Your task to perform on an android device: check google app version Image 0: 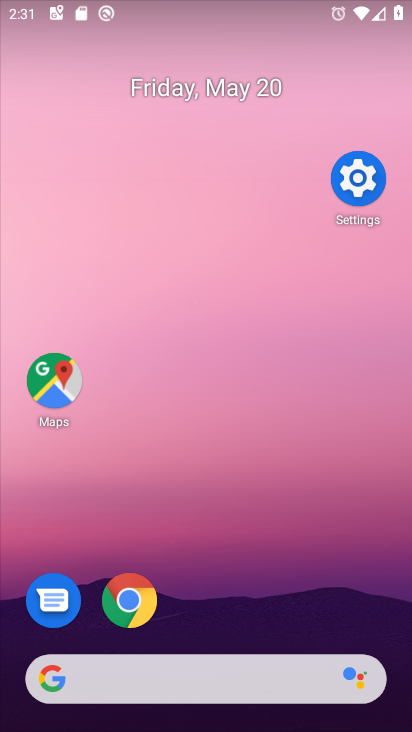
Step 0: click (58, 682)
Your task to perform on an android device: check google app version Image 1: 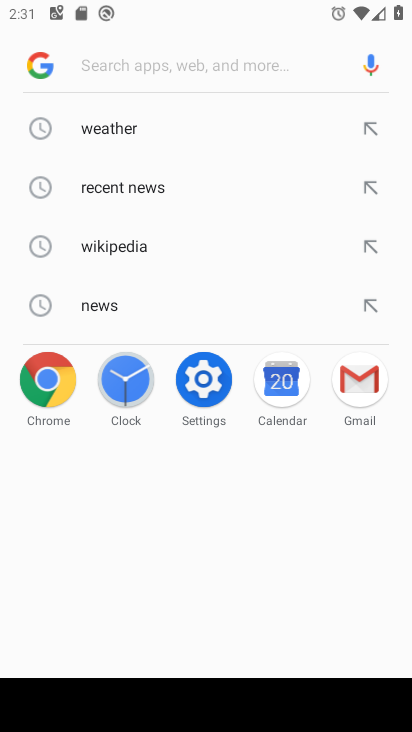
Step 1: click (39, 74)
Your task to perform on an android device: check google app version Image 2: 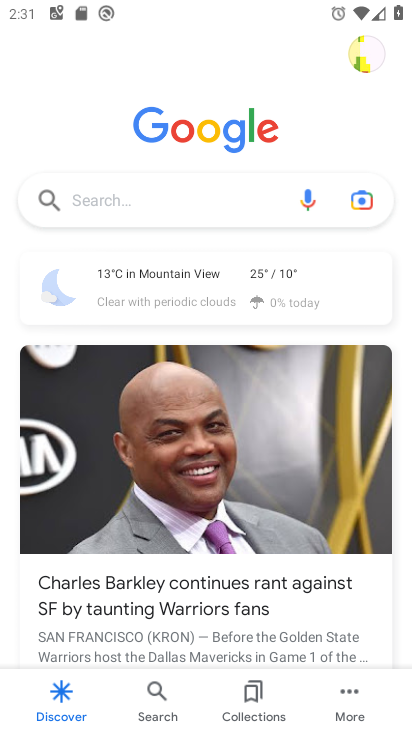
Step 2: click (348, 697)
Your task to perform on an android device: check google app version Image 3: 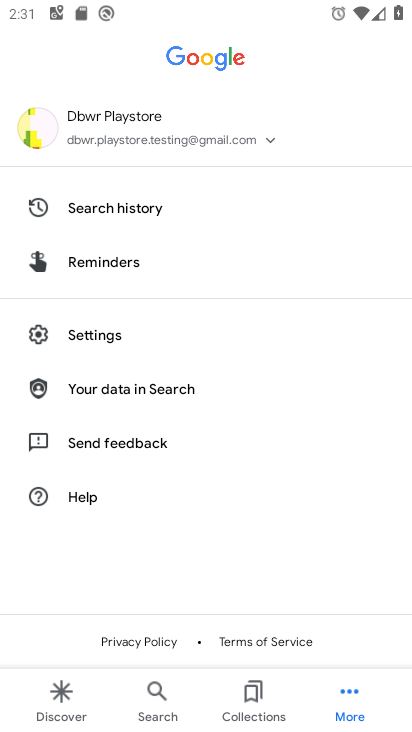
Step 3: click (92, 331)
Your task to perform on an android device: check google app version Image 4: 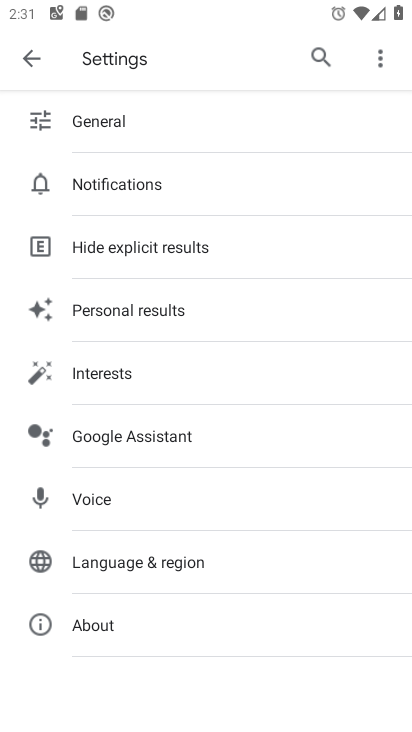
Step 4: click (117, 625)
Your task to perform on an android device: check google app version Image 5: 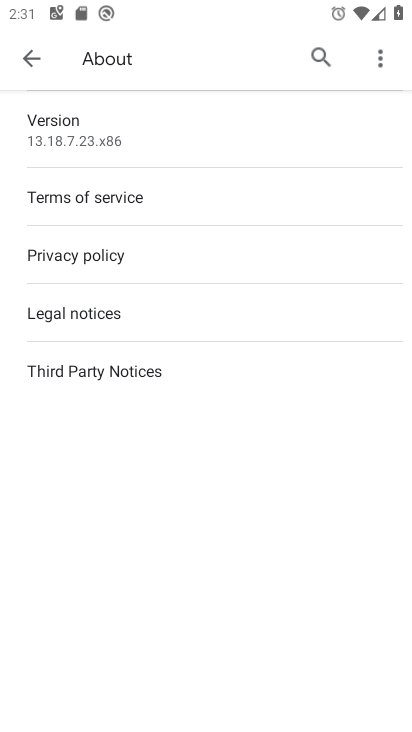
Step 5: task complete